Your task to perform on an android device: search for starred emails in the gmail app Image 0: 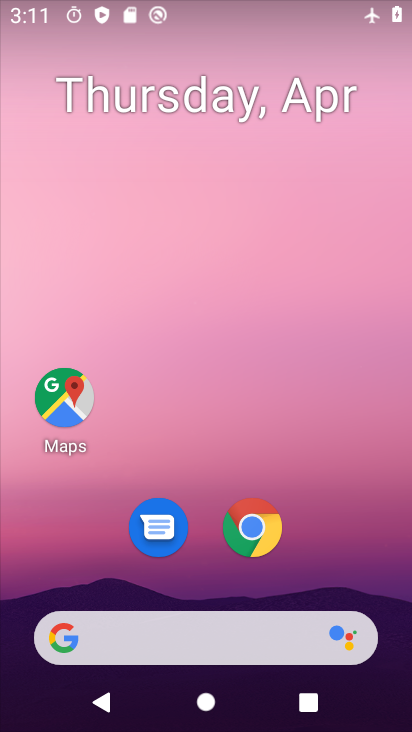
Step 0: drag from (321, 546) to (280, 150)
Your task to perform on an android device: search for starred emails in the gmail app Image 1: 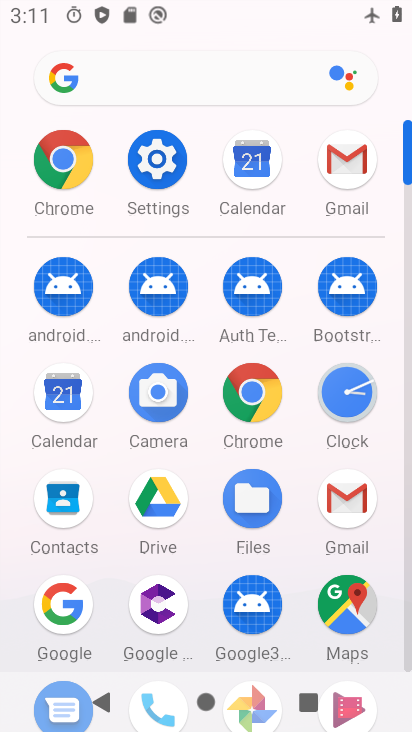
Step 1: click (334, 172)
Your task to perform on an android device: search for starred emails in the gmail app Image 2: 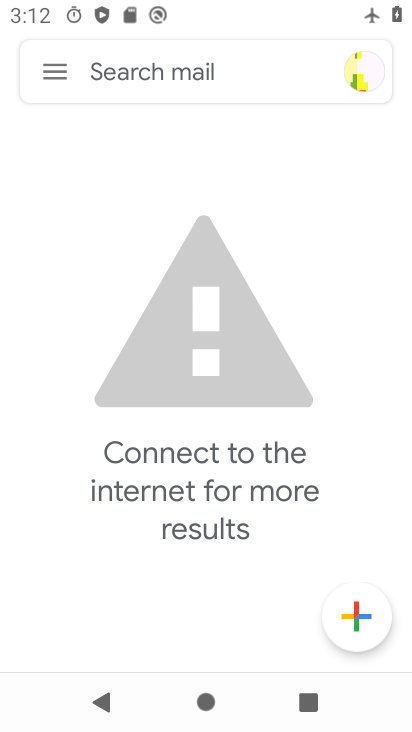
Step 2: click (40, 78)
Your task to perform on an android device: search for starred emails in the gmail app Image 3: 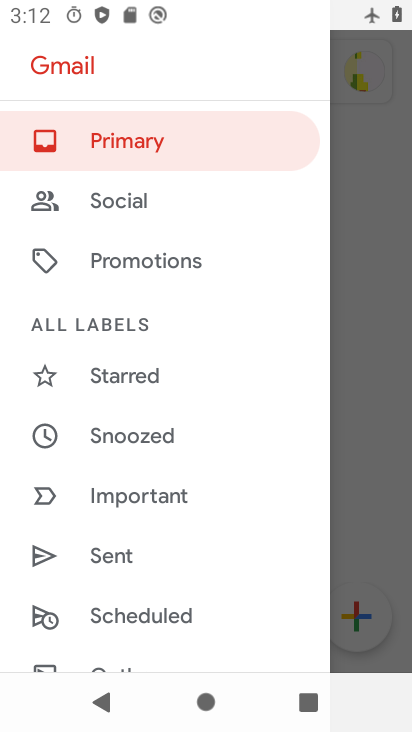
Step 3: click (97, 369)
Your task to perform on an android device: search for starred emails in the gmail app Image 4: 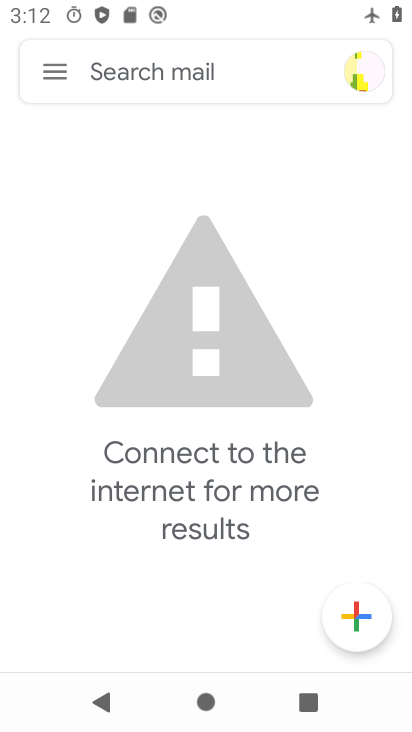
Step 4: task complete